Your task to perform on an android device: change text size in settings app Image 0: 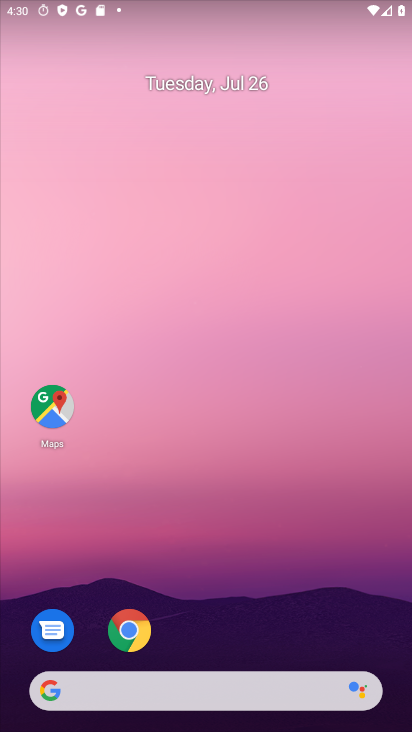
Step 0: drag from (306, 460) to (255, 37)
Your task to perform on an android device: change text size in settings app Image 1: 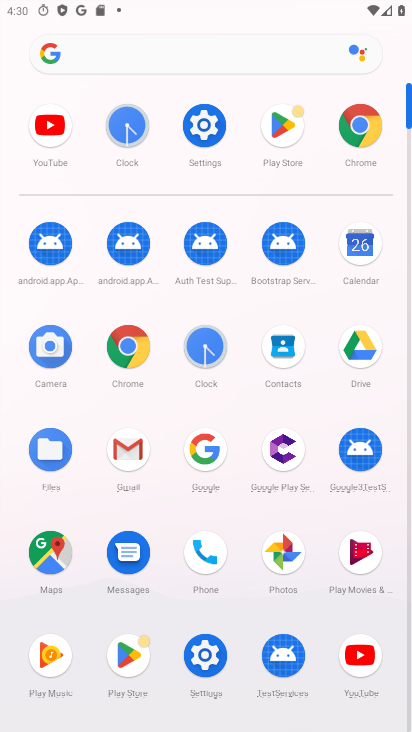
Step 1: click (205, 122)
Your task to perform on an android device: change text size in settings app Image 2: 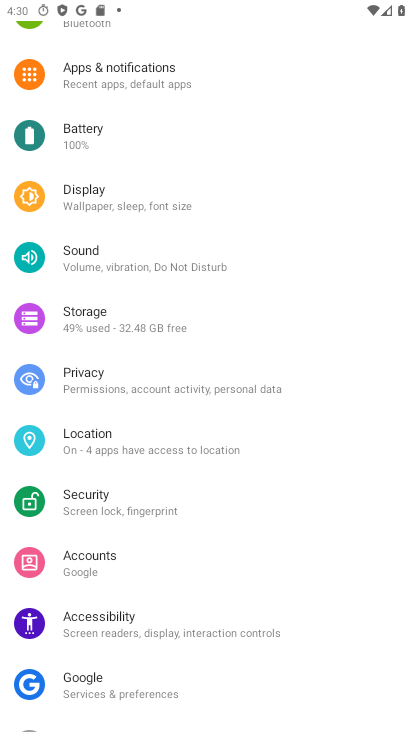
Step 2: click (119, 208)
Your task to perform on an android device: change text size in settings app Image 3: 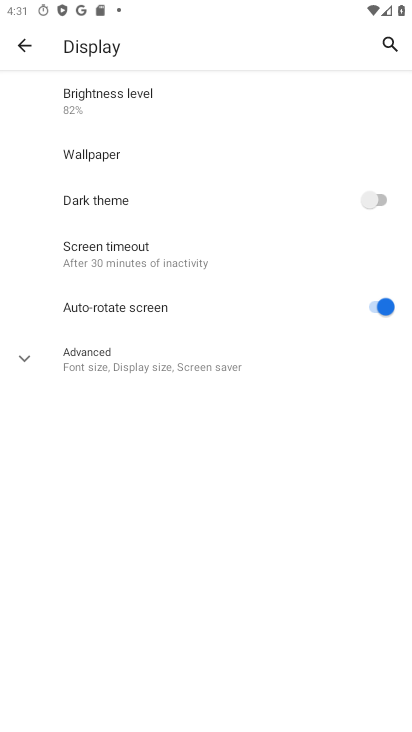
Step 3: click (111, 379)
Your task to perform on an android device: change text size in settings app Image 4: 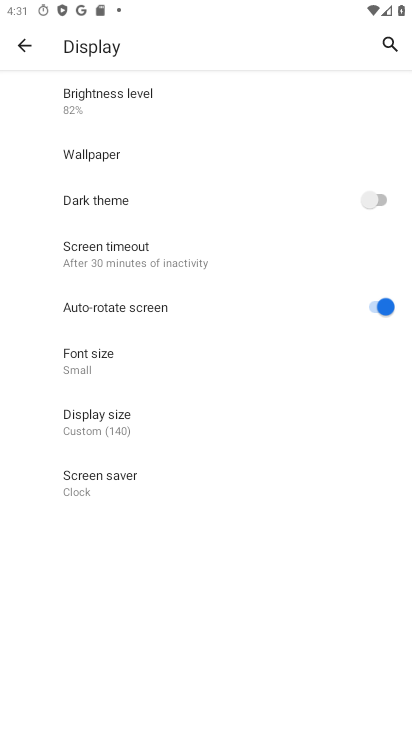
Step 4: click (94, 367)
Your task to perform on an android device: change text size in settings app Image 5: 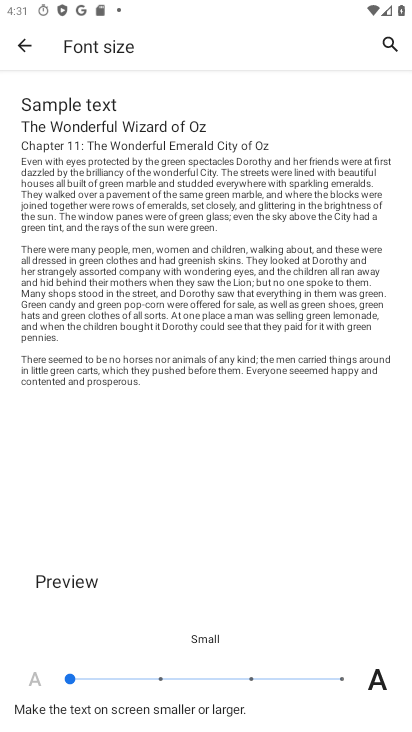
Step 5: click (125, 683)
Your task to perform on an android device: change text size in settings app Image 6: 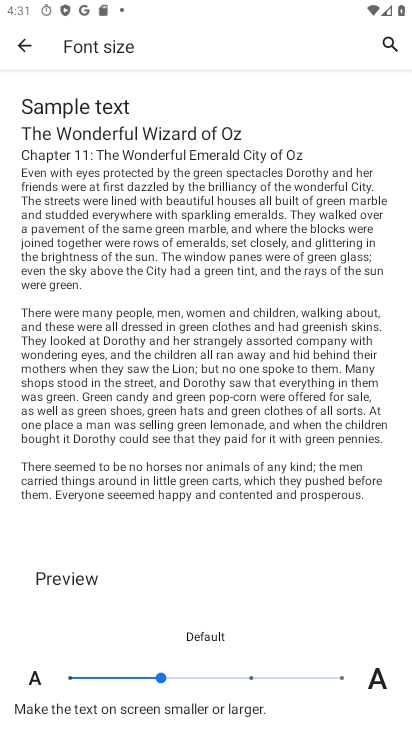
Step 6: task complete